Your task to perform on an android device: Open Youtube and go to the subscriptions tab Image 0: 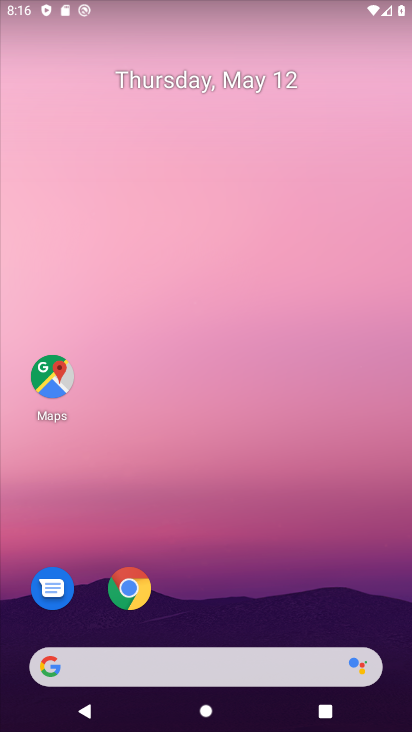
Step 0: drag from (194, 630) to (258, 180)
Your task to perform on an android device: Open Youtube and go to the subscriptions tab Image 1: 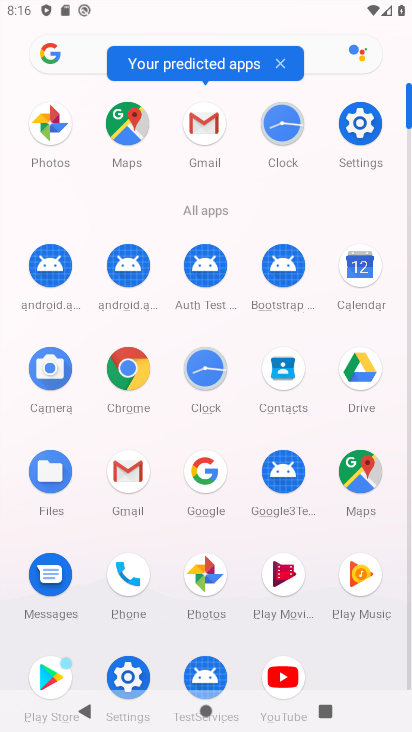
Step 1: click (281, 663)
Your task to perform on an android device: Open Youtube and go to the subscriptions tab Image 2: 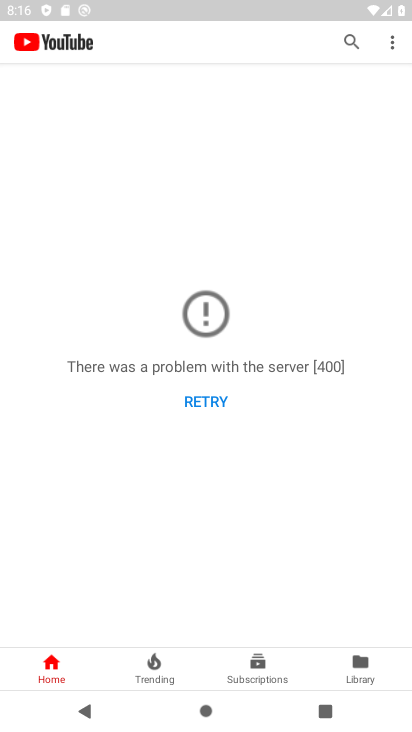
Step 2: click (258, 670)
Your task to perform on an android device: Open Youtube and go to the subscriptions tab Image 3: 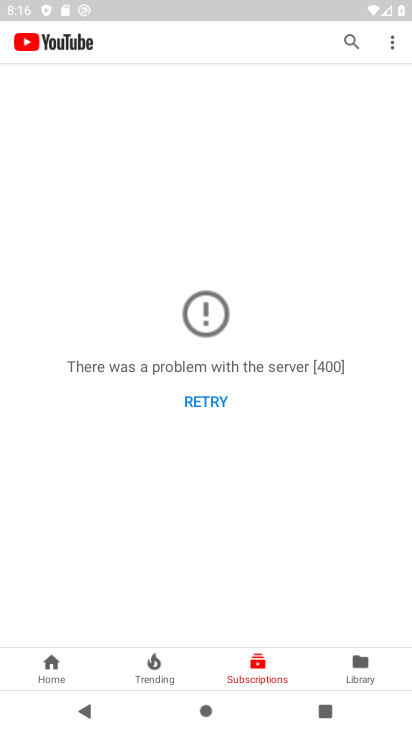
Step 3: task complete